Your task to perform on an android device: turn on location history Image 0: 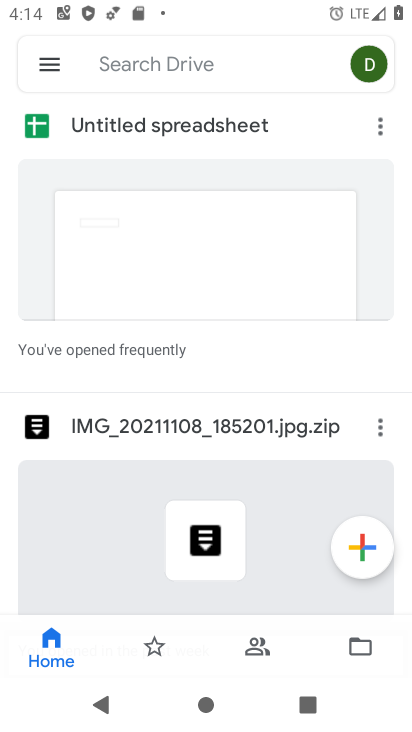
Step 0: press back button
Your task to perform on an android device: turn on location history Image 1: 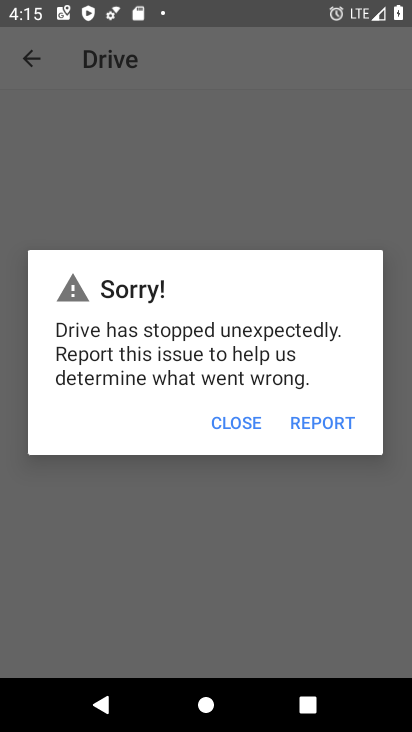
Step 1: press home button
Your task to perform on an android device: turn on location history Image 2: 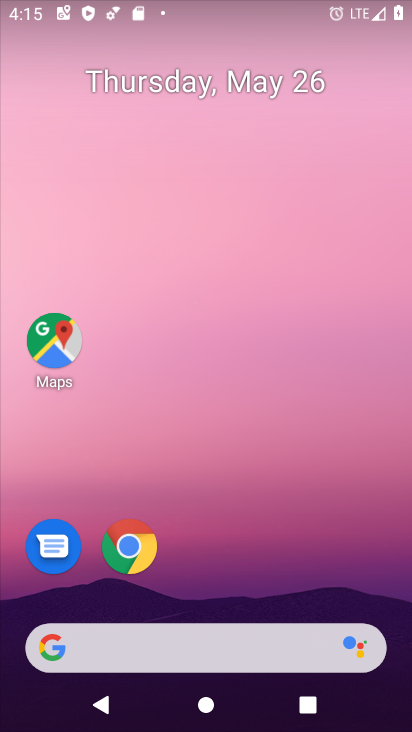
Step 2: drag from (223, 535) to (279, 120)
Your task to perform on an android device: turn on location history Image 3: 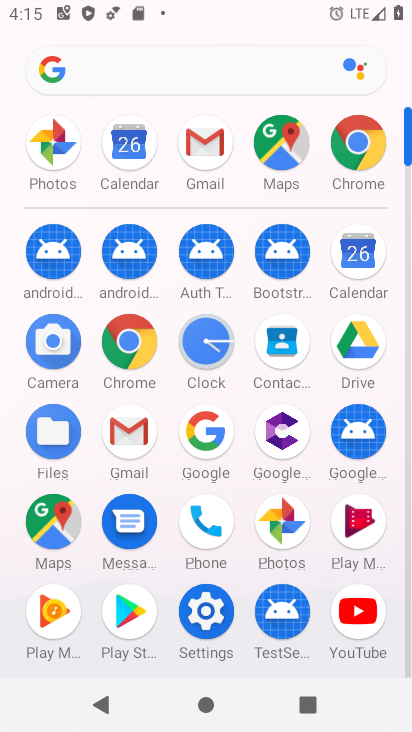
Step 3: click (203, 610)
Your task to perform on an android device: turn on location history Image 4: 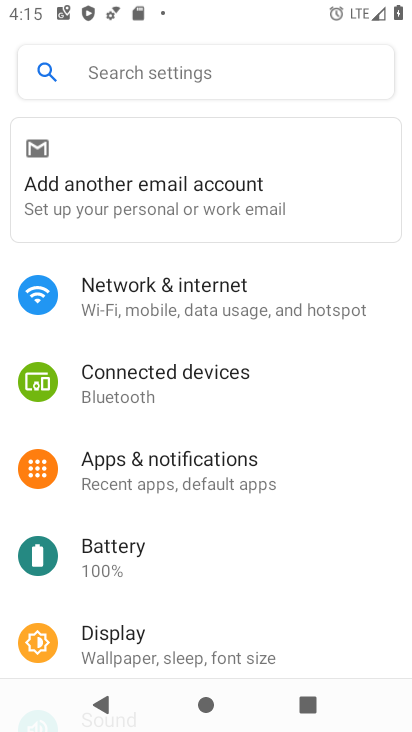
Step 4: drag from (196, 586) to (298, 112)
Your task to perform on an android device: turn on location history Image 5: 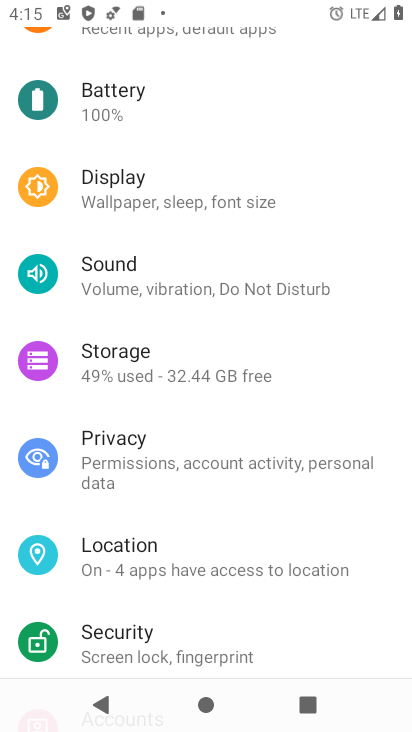
Step 5: click (139, 539)
Your task to perform on an android device: turn on location history Image 6: 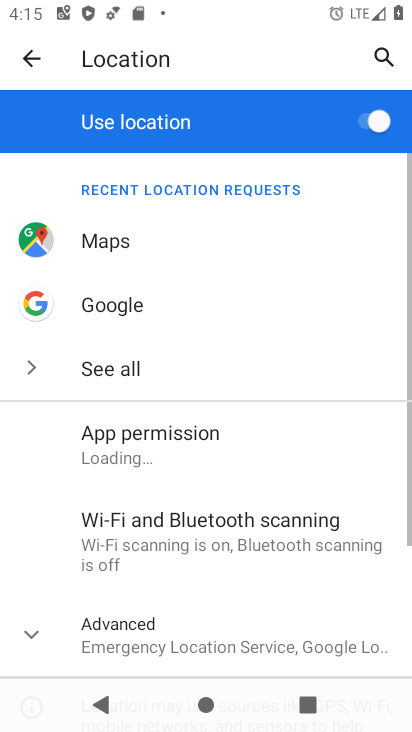
Step 6: drag from (165, 584) to (239, 106)
Your task to perform on an android device: turn on location history Image 7: 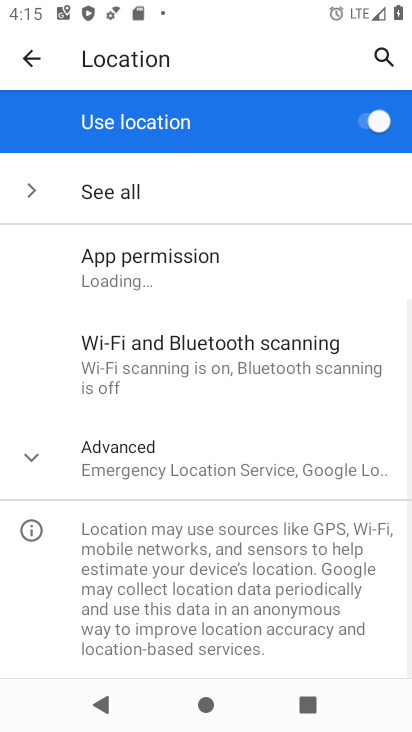
Step 7: click (119, 455)
Your task to perform on an android device: turn on location history Image 8: 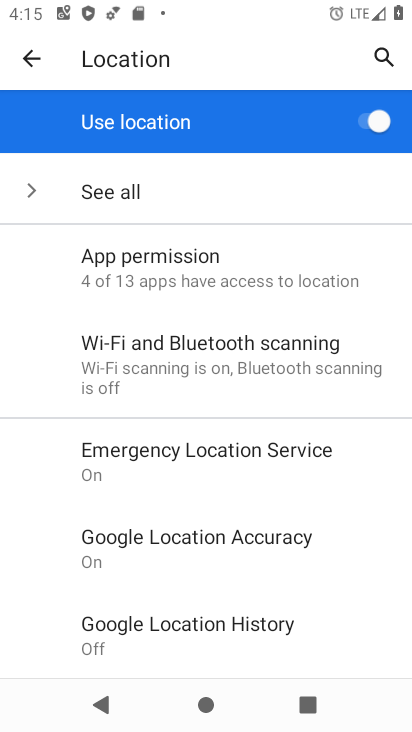
Step 8: click (160, 622)
Your task to perform on an android device: turn on location history Image 9: 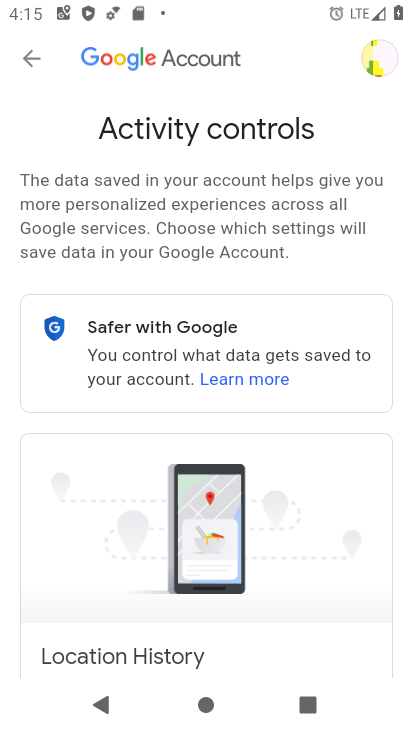
Step 9: drag from (174, 565) to (267, 128)
Your task to perform on an android device: turn on location history Image 10: 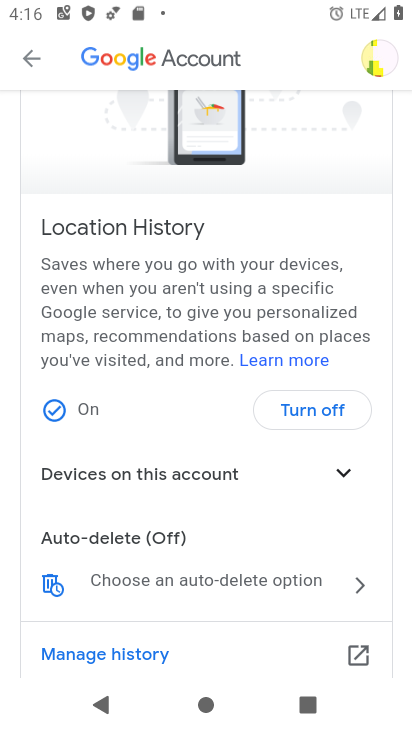
Step 10: click (146, 442)
Your task to perform on an android device: turn on location history Image 11: 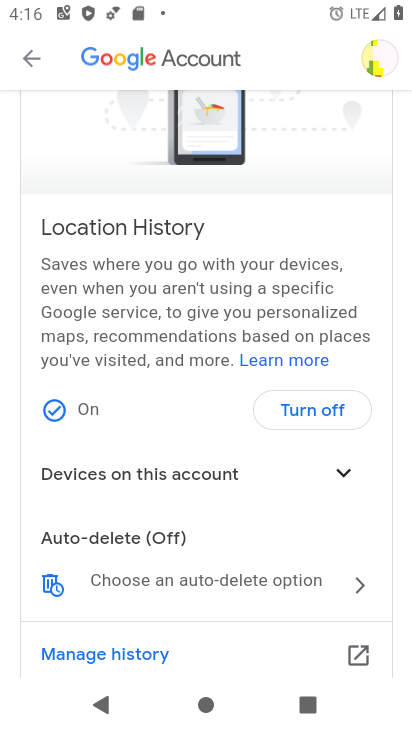
Step 11: task complete